Your task to perform on an android device: What's the weather going to be tomorrow? Image 0: 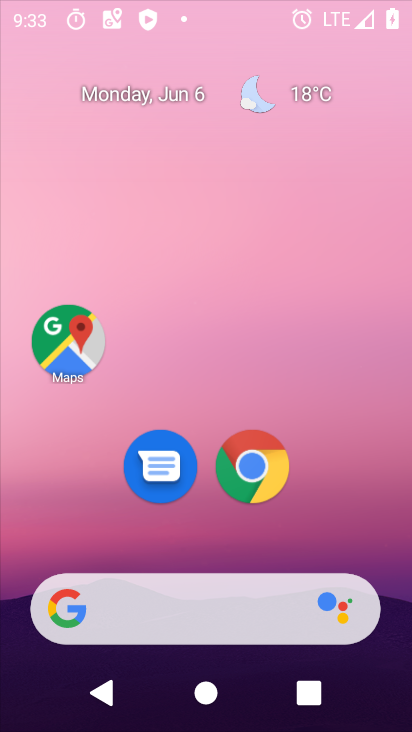
Step 0: click (204, 198)
Your task to perform on an android device: What's the weather going to be tomorrow? Image 1: 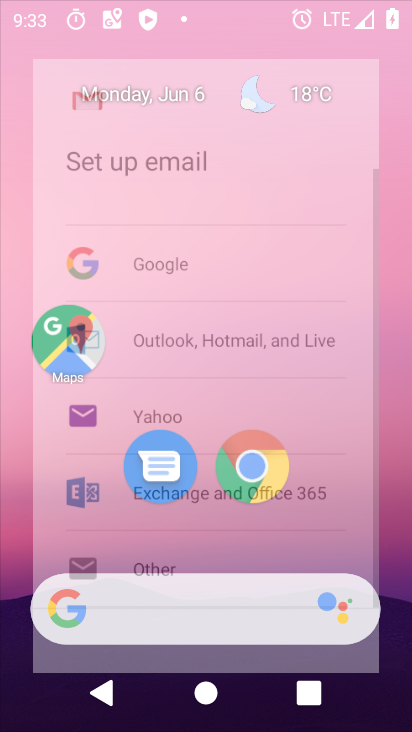
Step 1: drag from (212, 552) to (279, 156)
Your task to perform on an android device: What's the weather going to be tomorrow? Image 2: 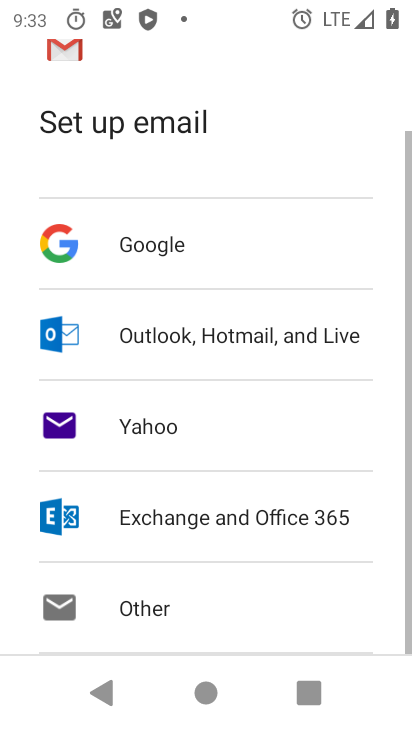
Step 2: press home button
Your task to perform on an android device: What's the weather going to be tomorrow? Image 3: 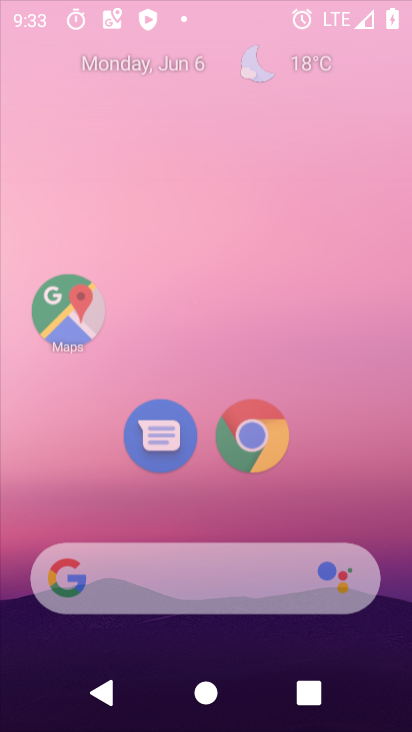
Step 3: drag from (221, 570) to (331, 69)
Your task to perform on an android device: What's the weather going to be tomorrow? Image 4: 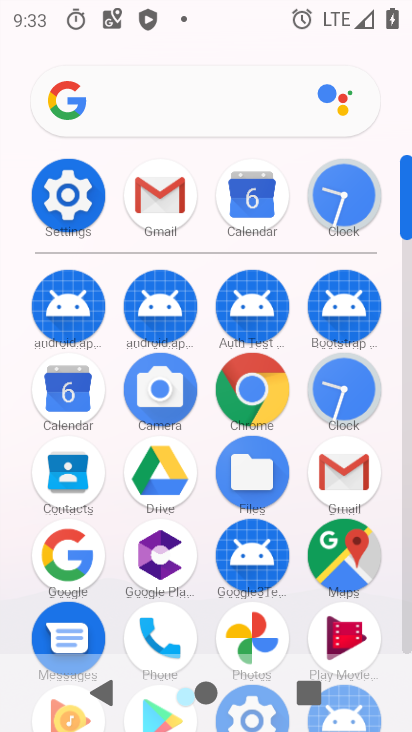
Step 4: click (199, 110)
Your task to perform on an android device: What's the weather going to be tomorrow? Image 5: 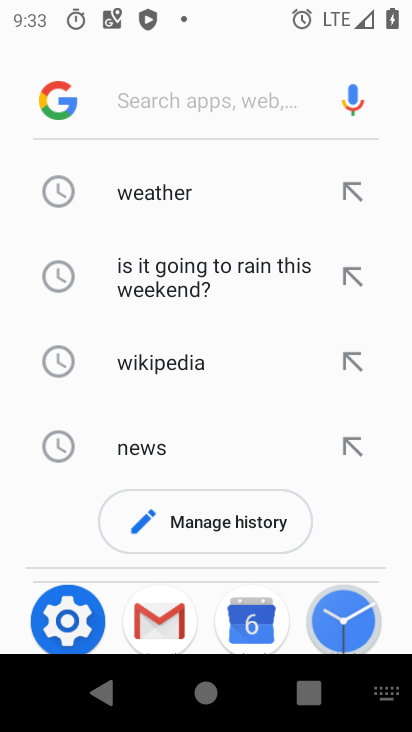
Step 5: click (134, 104)
Your task to perform on an android device: What's the weather going to be tomorrow? Image 6: 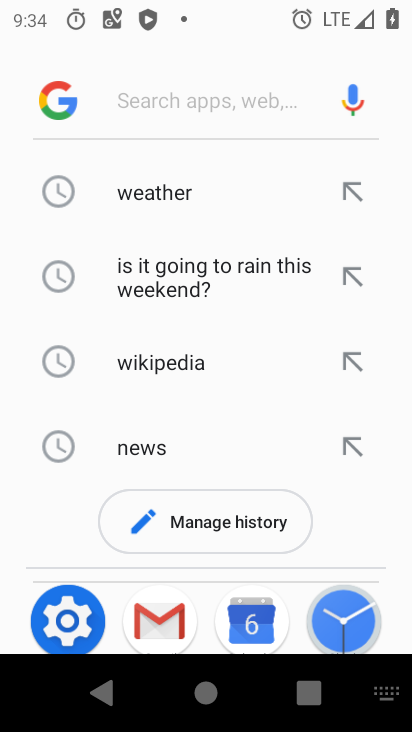
Step 6: type " weather going to be tomorrow?"
Your task to perform on an android device: What's the weather going to be tomorrow? Image 7: 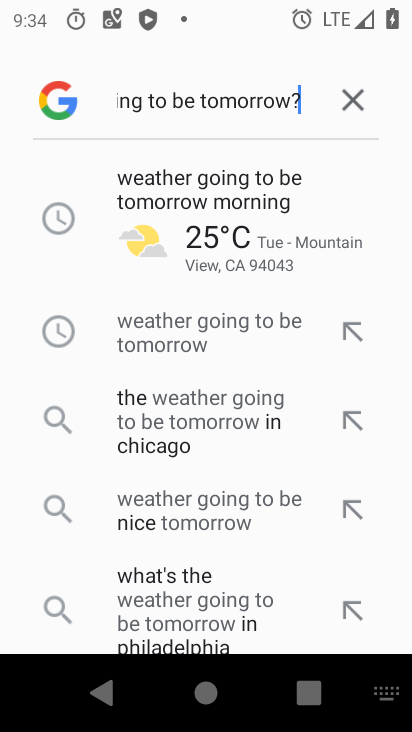
Step 7: type ""
Your task to perform on an android device: What's the weather going to be tomorrow? Image 8: 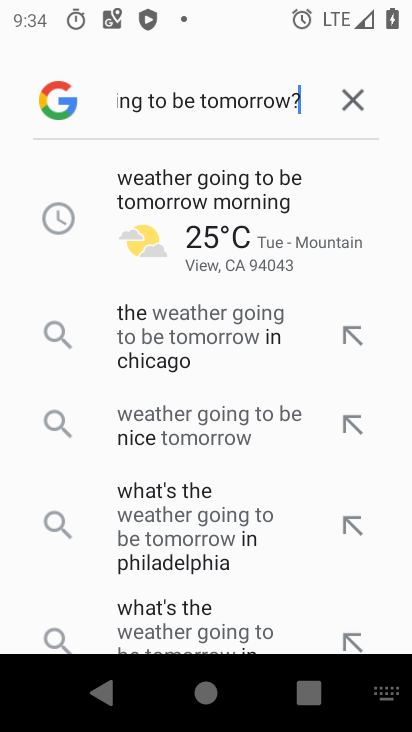
Step 8: click (209, 192)
Your task to perform on an android device: What's the weather going to be tomorrow? Image 9: 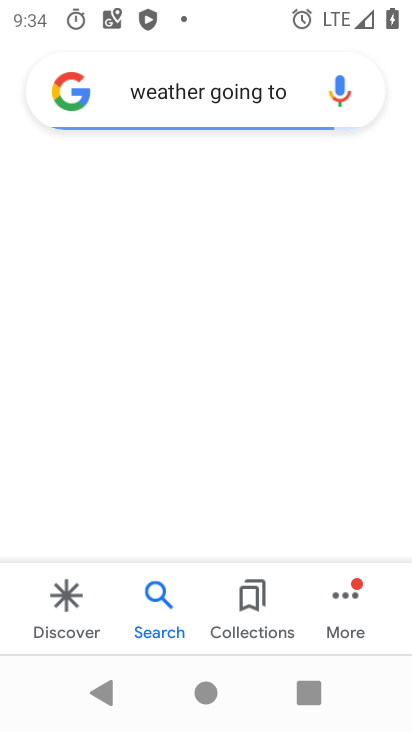
Step 9: task complete